Your task to perform on an android device: stop showing notifications on the lock screen Image 0: 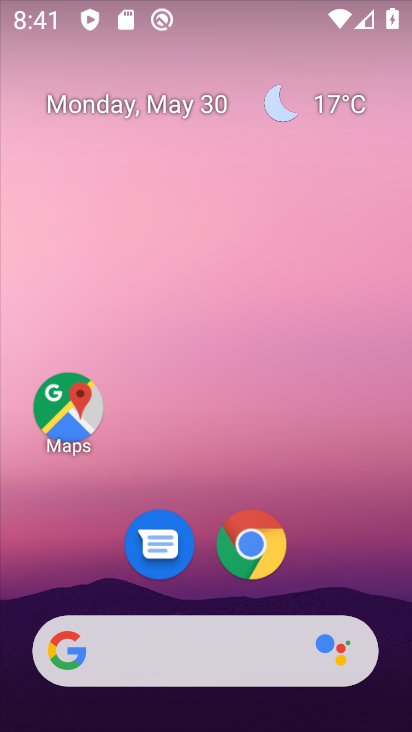
Step 0: drag from (341, 581) to (283, 62)
Your task to perform on an android device: stop showing notifications on the lock screen Image 1: 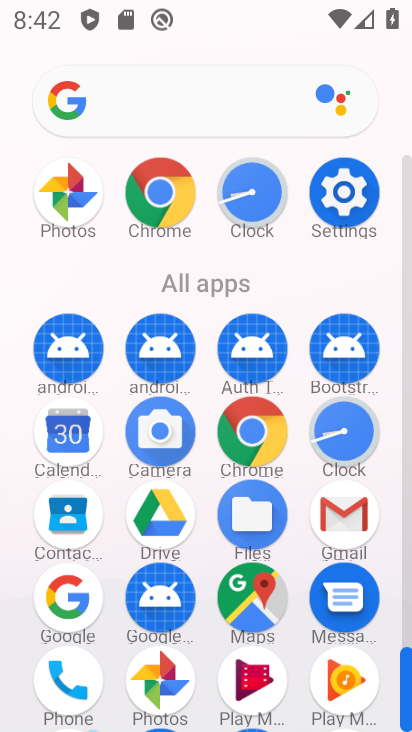
Step 1: click (344, 195)
Your task to perform on an android device: stop showing notifications on the lock screen Image 2: 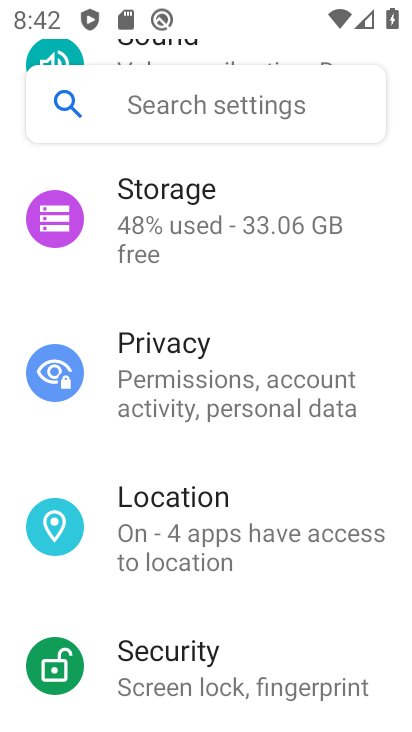
Step 2: drag from (222, 288) to (142, 410)
Your task to perform on an android device: stop showing notifications on the lock screen Image 3: 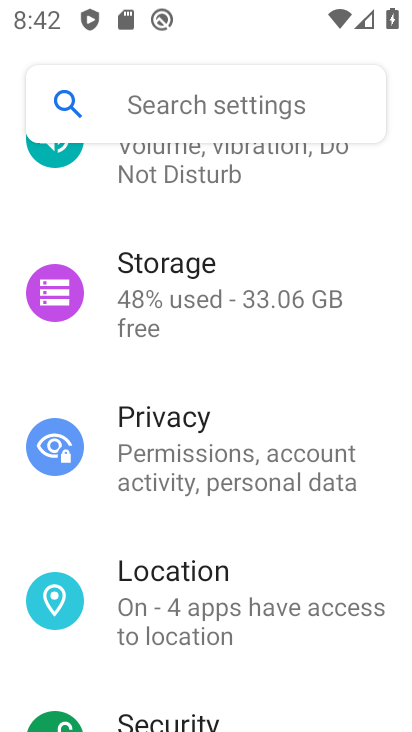
Step 3: drag from (196, 219) to (202, 390)
Your task to perform on an android device: stop showing notifications on the lock screen Image 4: 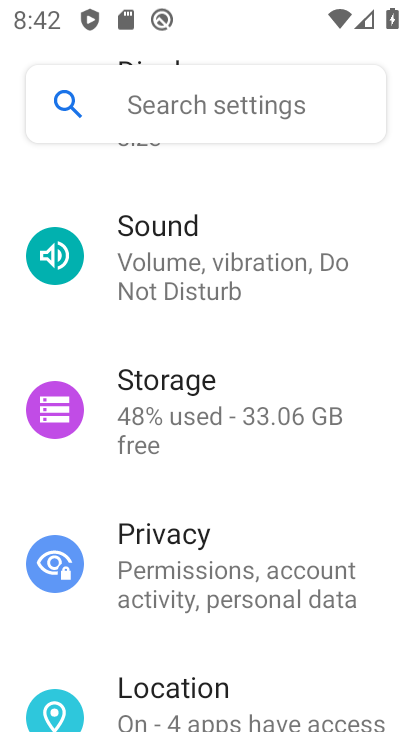
Step 4: drag from (245, 326) to (257, 475)
Your task to perform on an android device: stop showing notifications on the lock screen Image 5: 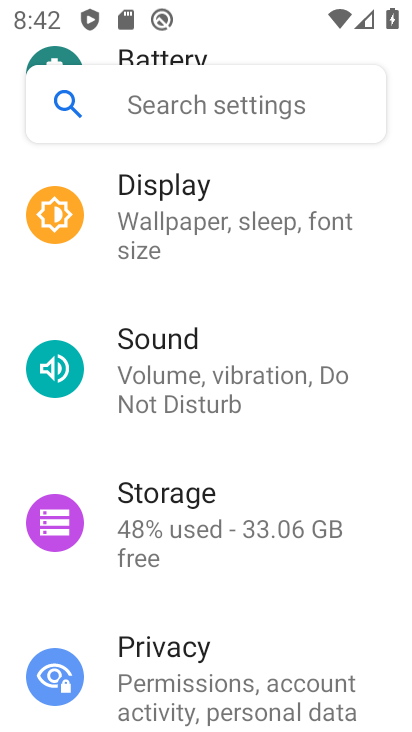
Step 5: drag from (262, 301) to (236, 469)
Your task to perform on an android device: stop showing notifications on the lock screen Image 6: 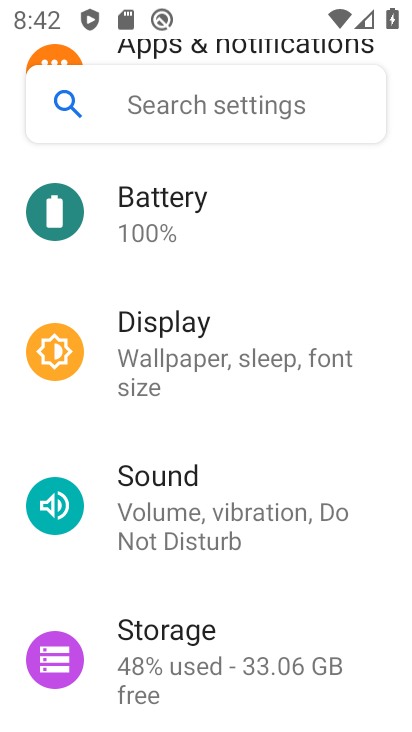
Step 6: drag from (258, 278) to (243, 490)
Your task to perform on an android device: stop showing notifications on the lock screen Image 7: 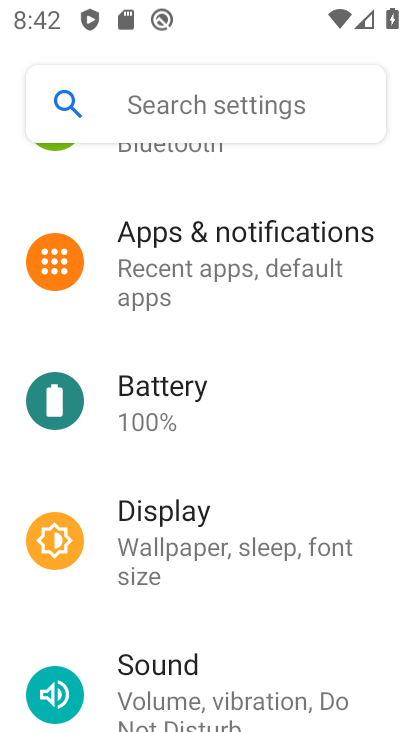
Step 7: drag from (247, 331) to (273, 529)
Your task to perform on an android device: stop showing notifications on the lock screen Image 8: 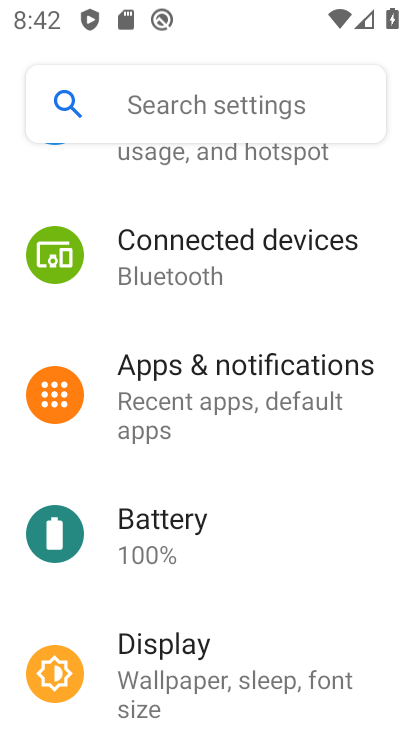
Step 8: click (222, 381)
Your task to perform on an android device: stop showing notifications on the lock screen Image 9: 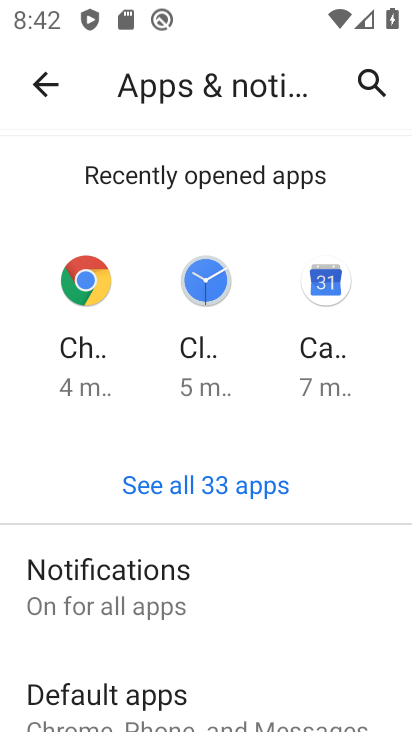
Step 9: click (103, 569)
Your task to perform on an android device: stop showing notifications on the lock screen Image 10: 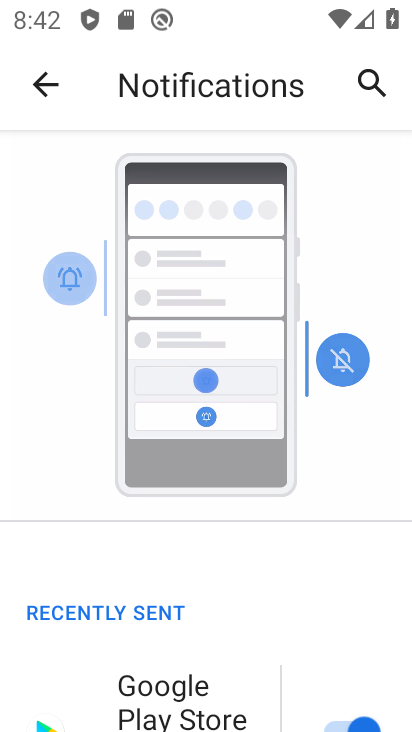
Step 10: drag from (190, 577) to (257, 392)
Your task to perform on an android device: stop showing notifications on the lock screen Image 11: 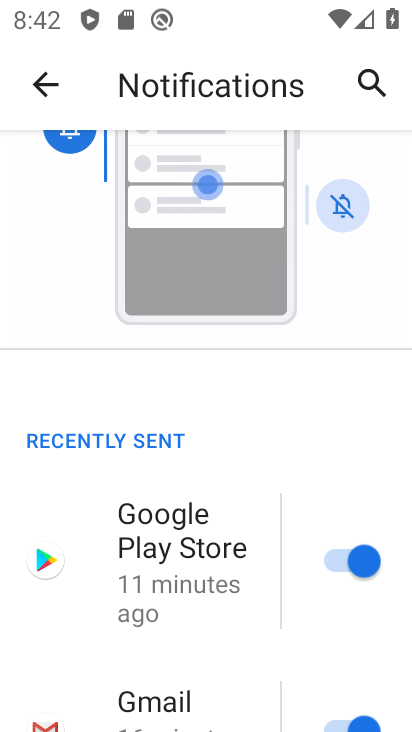
Step 11: drag from (178, 654) to (260, 426)
Your task to perform on an android device: stop showing notifications on the lock screen Image 12: 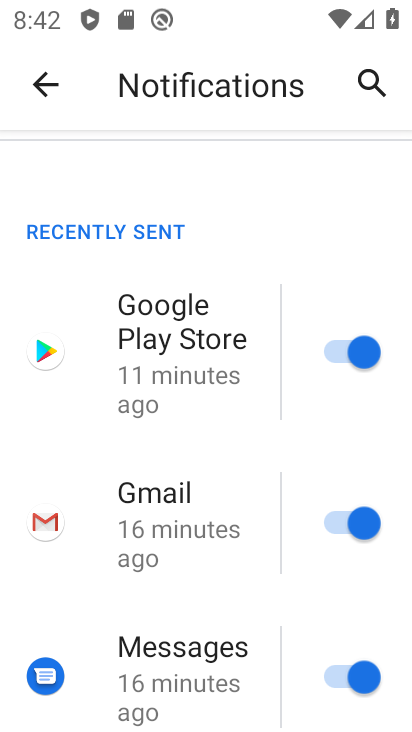
Step 12: drag from (165, 601) to (274, 293)
Your task to perform on an android device: stop showing notifications on the lock screen Image 13: 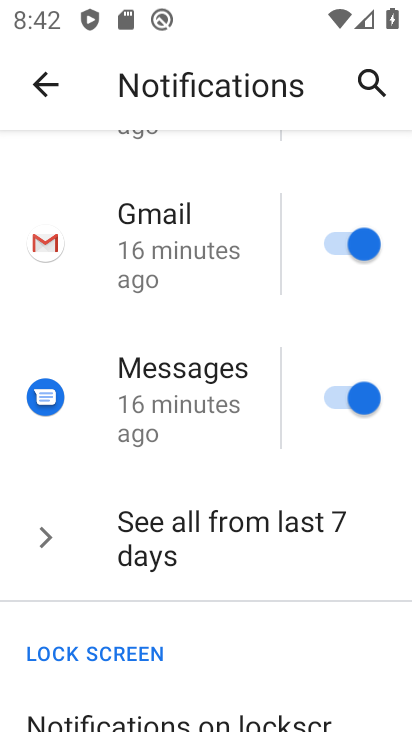
Step 13: drag from (193, 623) to (255, 492)
Your task to perform on an android device: stop showing notifications on the lock screen Image 14: 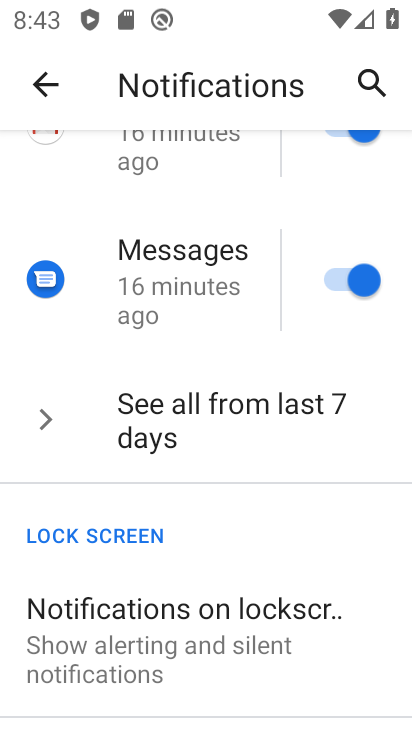
Step 14: click (206, 615)
Your task to perform on an android device: stop showing notifications on the lock screen Image 15: 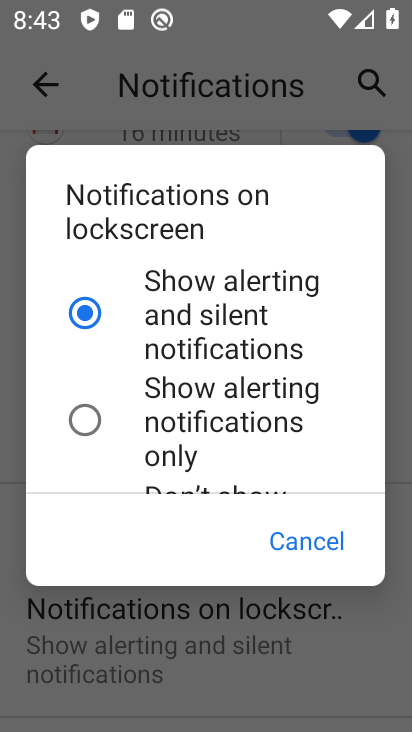
Step 15: drag from (199, 436) to (241, 300)
Your task to perform on an android device: stop showing notifications on the lock screen Image 16: 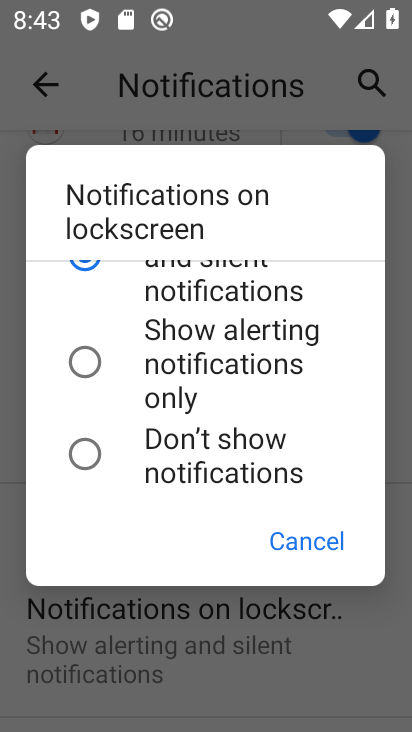
Step 16: click (84, 464)
Your task to perform on an android device: stop showing notifications on the lock screen Image 17: 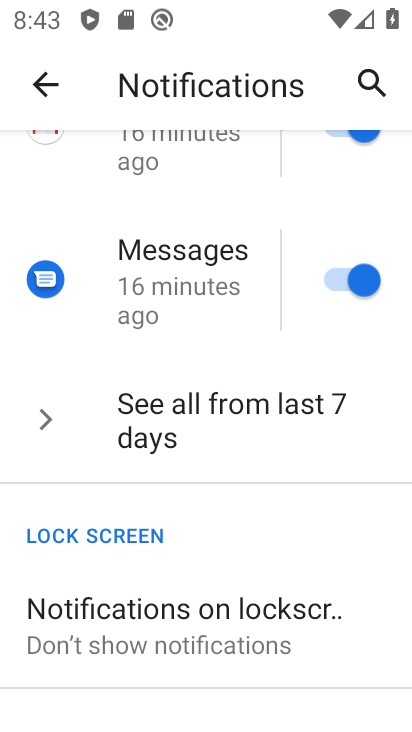
Step 17: task complete